Your task to perform on an android device: turn on improve location accuracy Image 0: 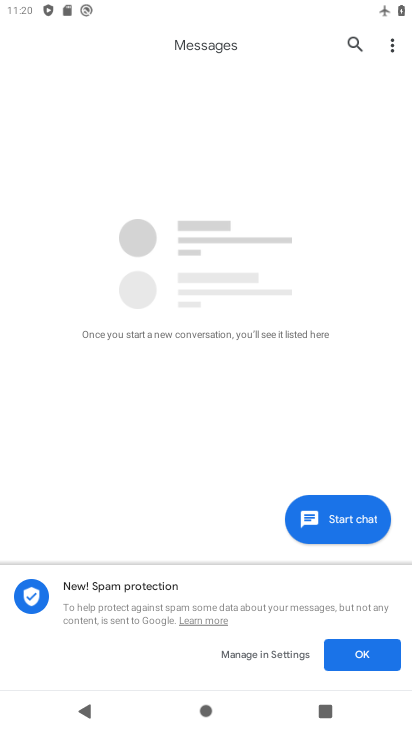
Step 0: press home button
Your task to perform on an android device: turn on improve location accuracy Image 1: 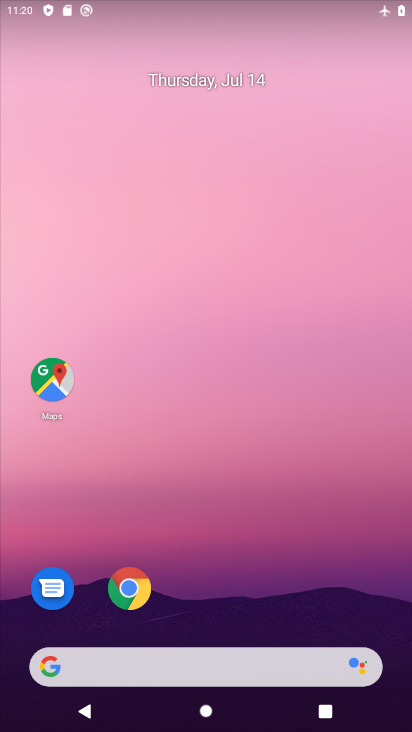
Step 1: drag from (222, 545) to (222, 44)
Your task to perform on an android device: turn on improve location accuracy Image 2: 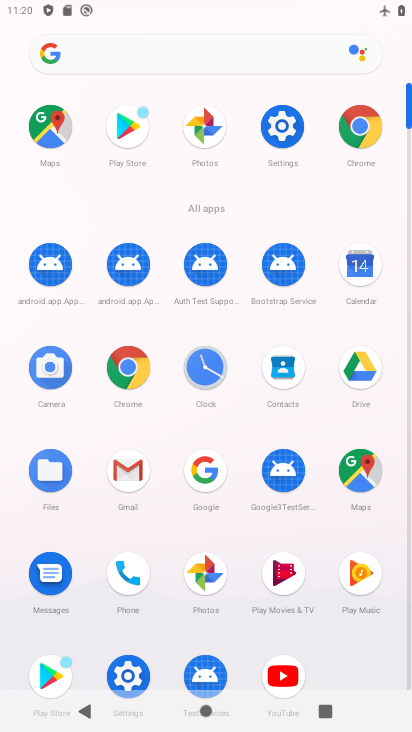
Step 2: click (127, 675)
Your task to perform on an android device: turn on improve location accuracy Image 3: 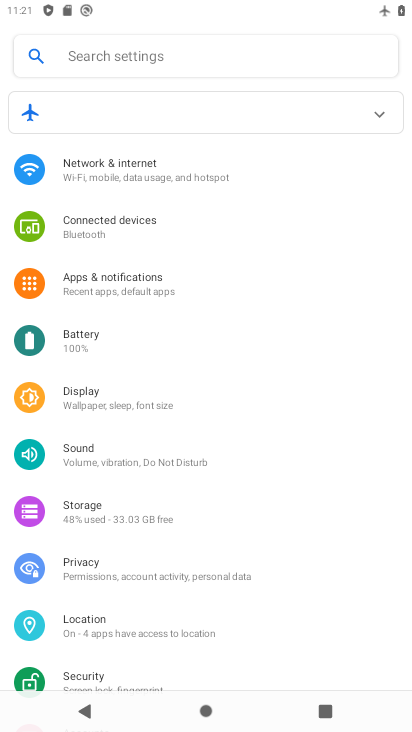
Step 3: drag from (118, 519) to (127, 443)
Your task to perform on an android device: turn on improve location accuracy Image 4: 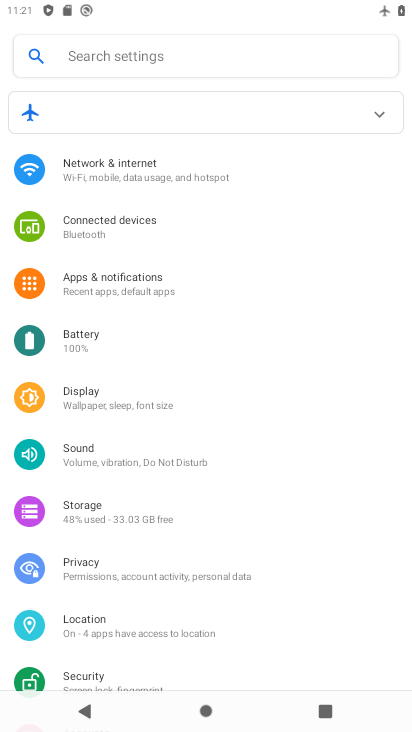
Step 4: click (115, 634)
Your task to perform on an android device: turn on improve location accuracy Image 5: 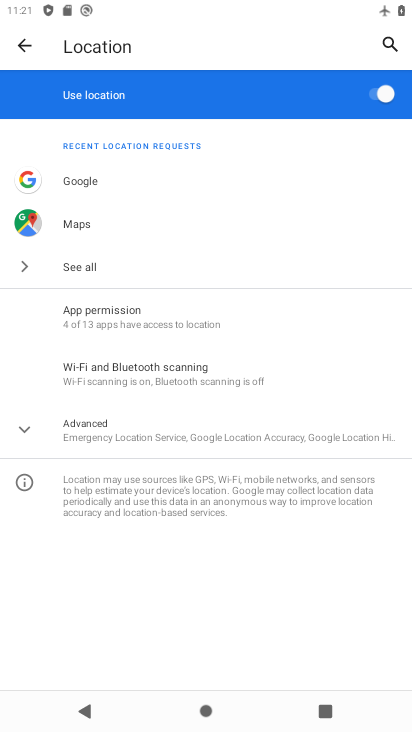
Step 5: click (110, 432)
Your task to perform on an android device: turn on improve location accuracy Image 6: 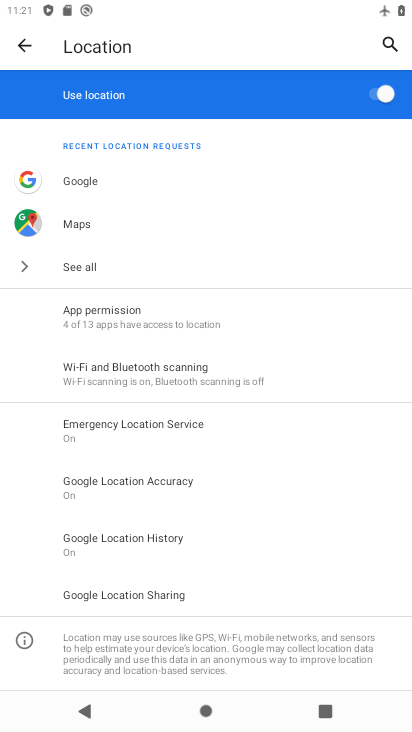
Step 6: click (120, 481)
Your task to perform on an android device: turn on improve location accuracy Image 7: 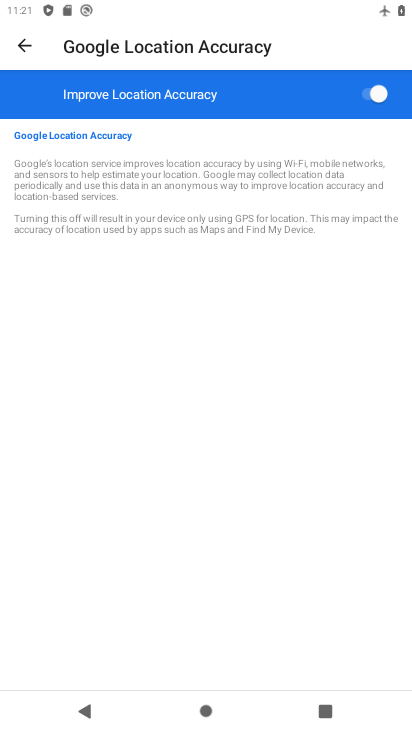
Step 7: task complete